Your task to perform on an android device: find which apps use the phone's location Image 0: 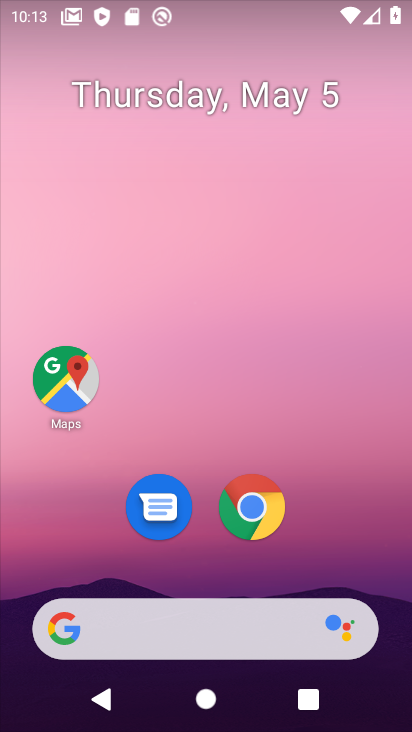
Step 0: drag from (352, 595) to (411, 252)
Your task to perform on an android device: find which apps use the phone's location Image 1: 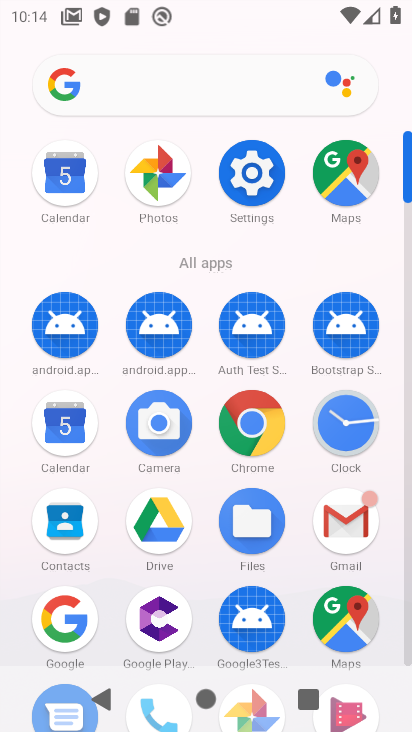
Step 1: click (248, 185)
Your task to perform on an android device: find which apps use the phone's location Image 2: 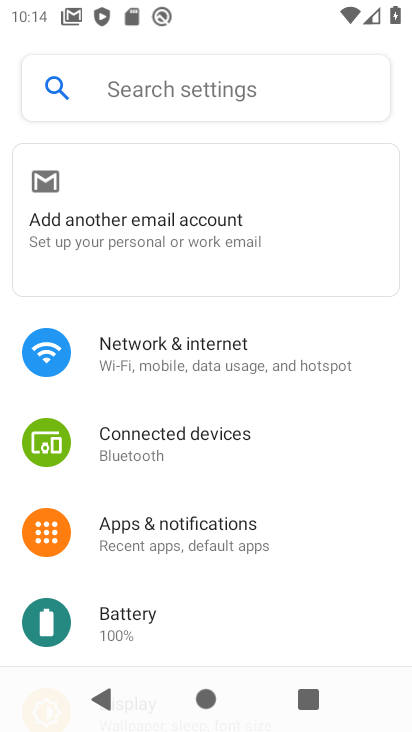
Step 2: drag from (290, 583) to (274, 205)
Your task to perform on an android device: find which apps use the phone's location Image 3: 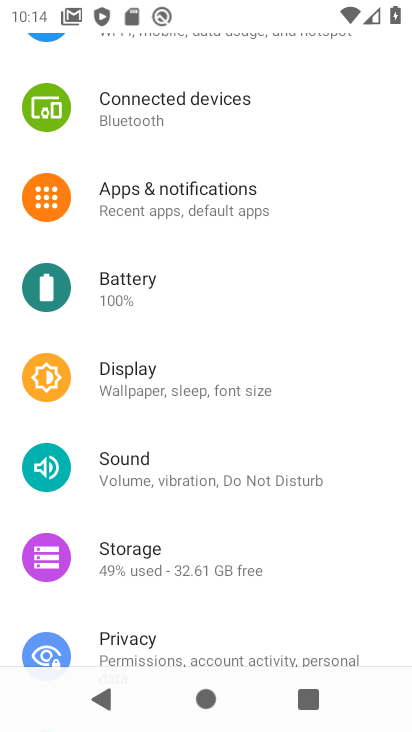
Step 3: drag from (287, 530) to (281, 125)
Your task to perform on an android device: find which apps use the phone's location Image 4: 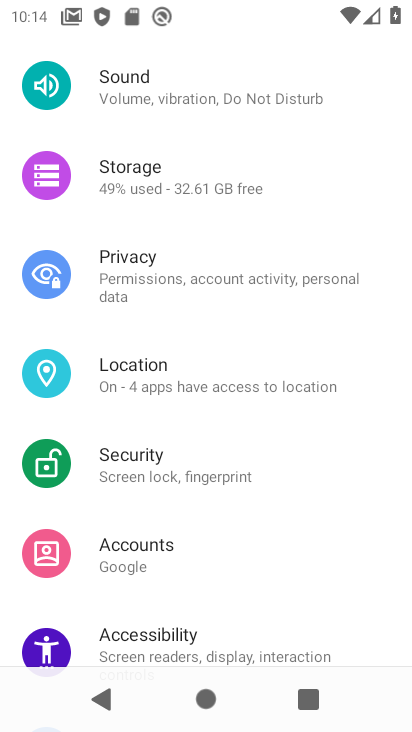
Step 4: click (149, 388)
Your task to perform on an android device: find which apps use the phone's location Image 5: 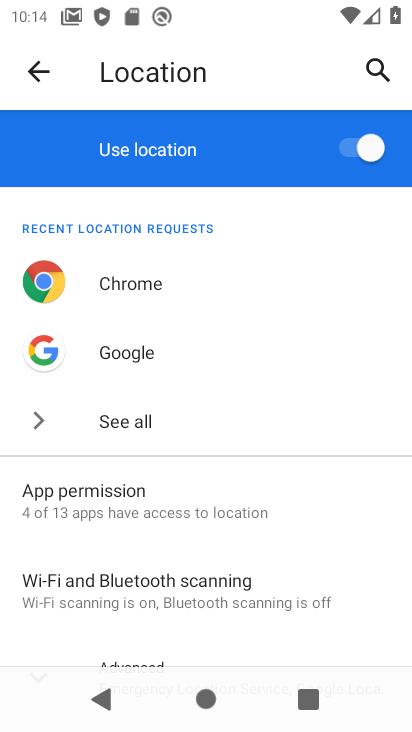
Step 5: click (99, 514)
Your task to perform on an android device: find which apps use the phone's location Image 6: 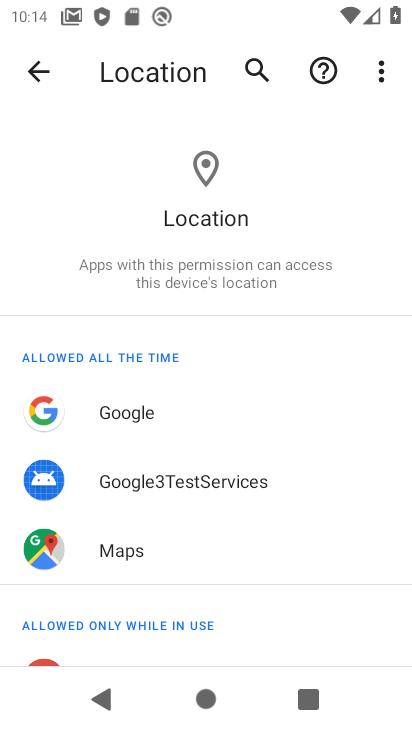
Step 6: task complete